Your task to perform on an android device: add a contact in the contacts app Image 0: 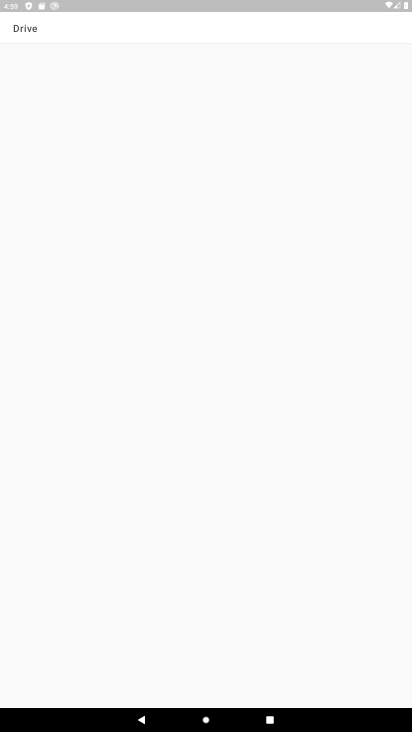
Step 0: press home button
Your task to perform on an android device: add a contact in the contacts app Image 1: 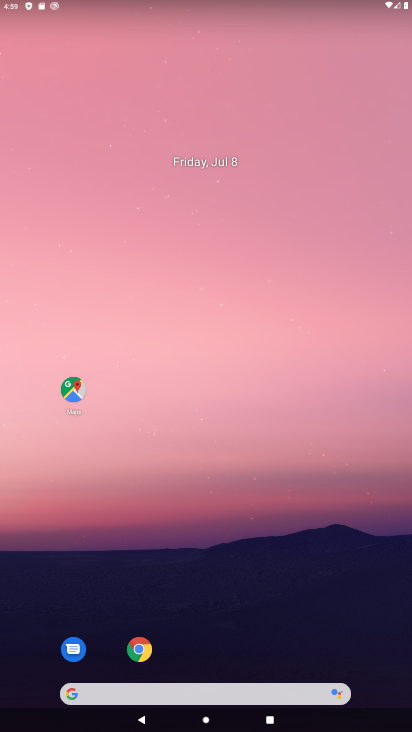
Step 1: drag from (295, 599) to (251, 155)
Your task to perform on an android device: add a contact in the contacts app Image 2: 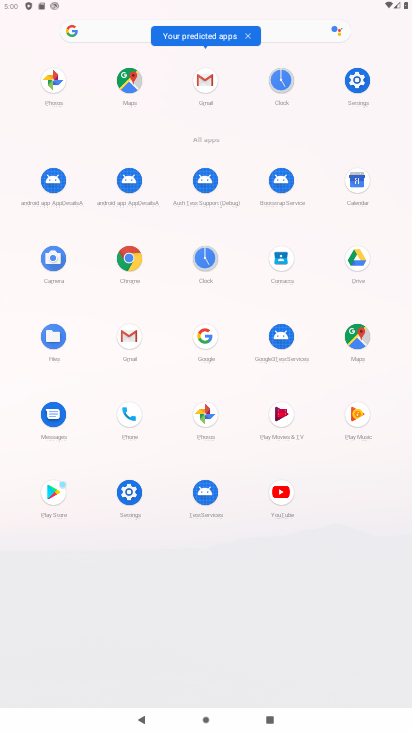
Step 2: click (284, 256)
Your task to perform on an android device: add a contact in the contacts app Image 3: 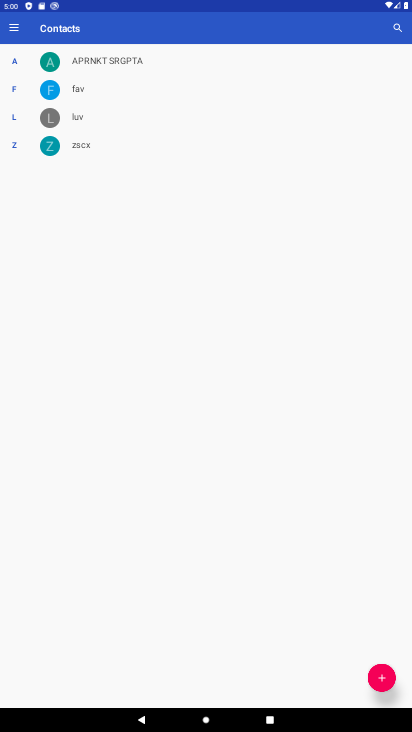
Step 3: click (391, 677)
Your task to perform on an android device: add a contact in the contacts app Image 4: 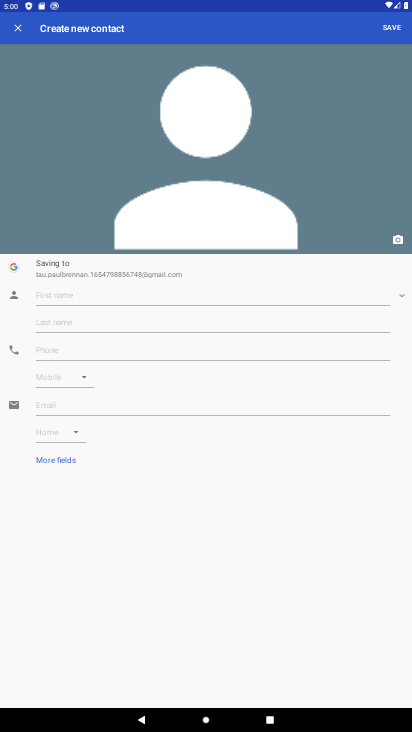
Step 4: click (109, 301)
Your task to perform on an android device: add a contact in the contacts app Image 5: 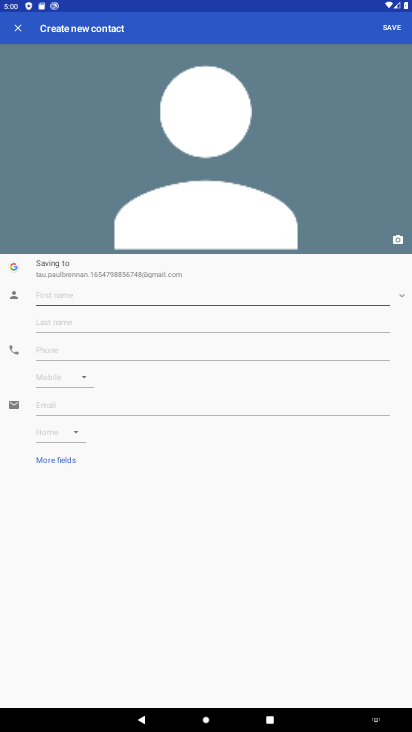
Step 5: type "puri"
Your task to perform on an android device: add a contact in the contacts app Image 6: 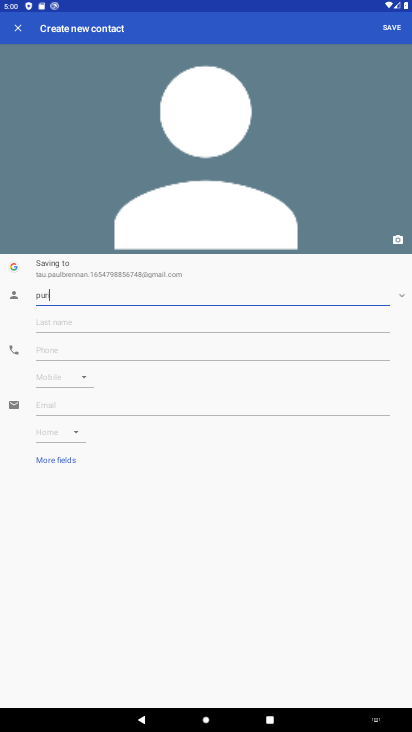
Step 6: click (395, 26)
Your task to perform on an android device: add a contact in the contacts app Image 7: 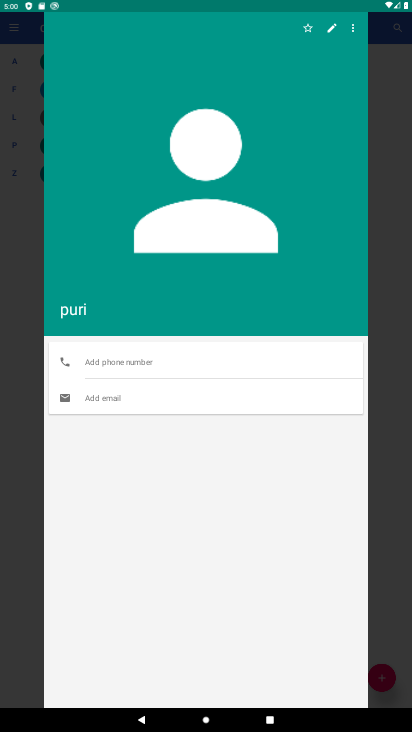
Step 7: task complete